Your task to perform on an android device: Open Reddit.com Image 0: 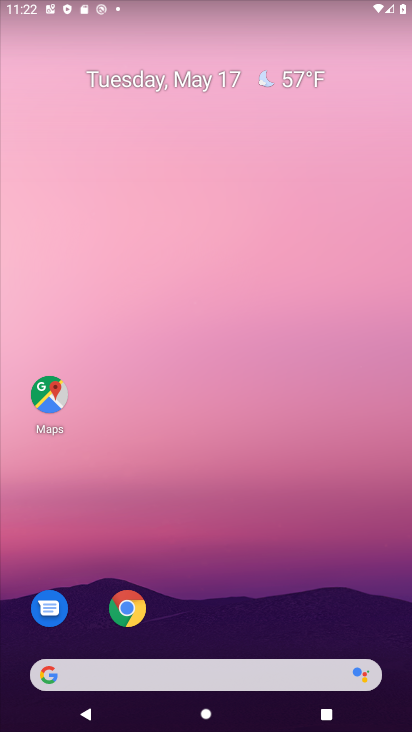
Step 0: click (129, 610)
Your task to perform on an android device: Open Reddit.com Image 1: 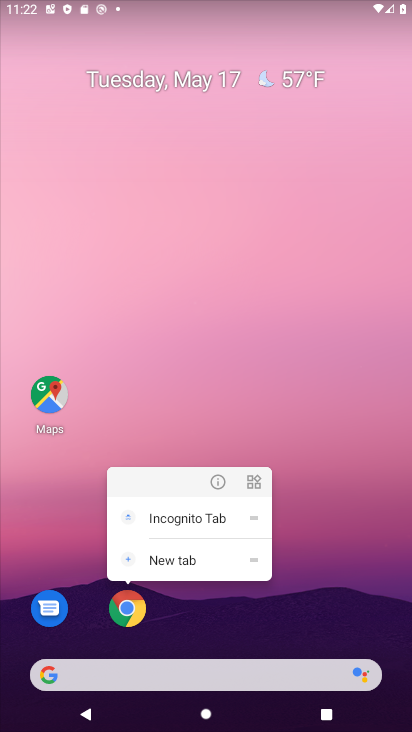
Step 1: click (129, 610)
Your task to perform on an android device: Open Reddit.com Image 2: 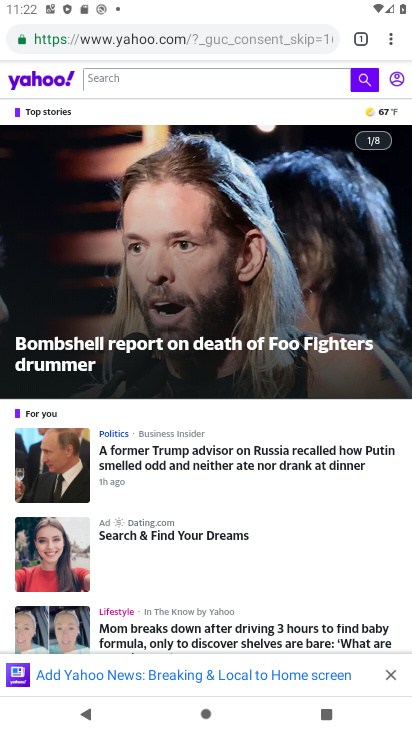
Step 2: click (197, 37)
Your task to perform on an android device: Open Reddit.com Image 3: 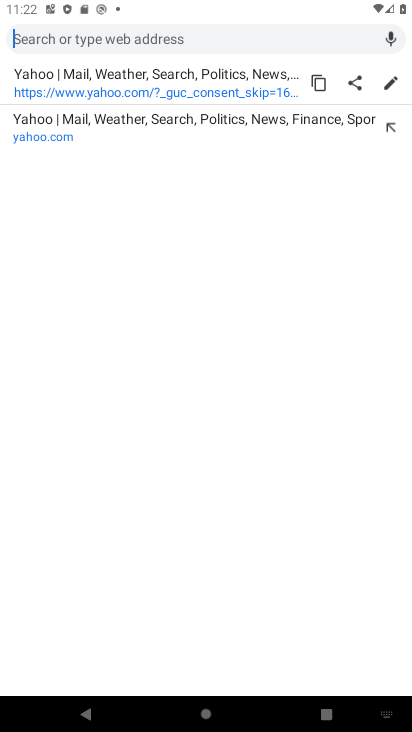
Step 3: type "Reddit.com"
Your task to perform on an android device: Open Reddit.com Image 4: 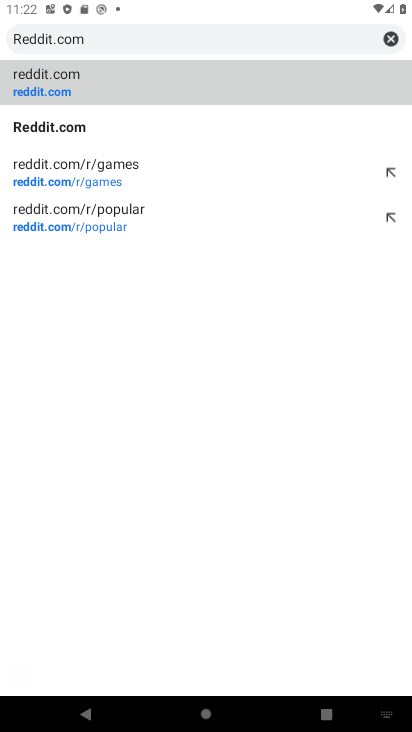
Step 4: click (61, 86)
Your task to perform on an android device: Open Reddit.com Image 5: 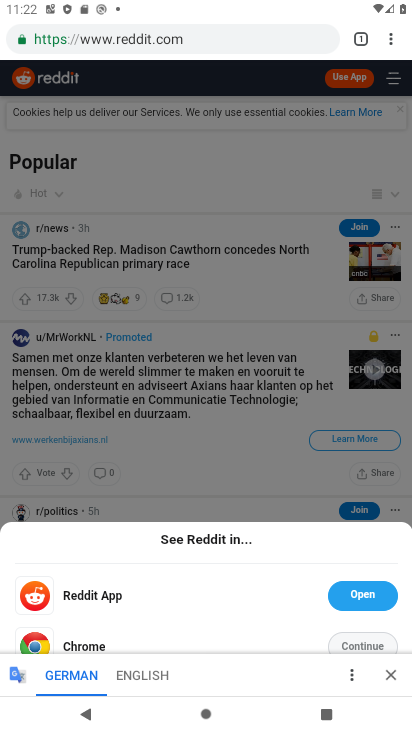
Step 5: task complete